Your task to perform on an android device: delete browsing data in the chrome app Image 0: 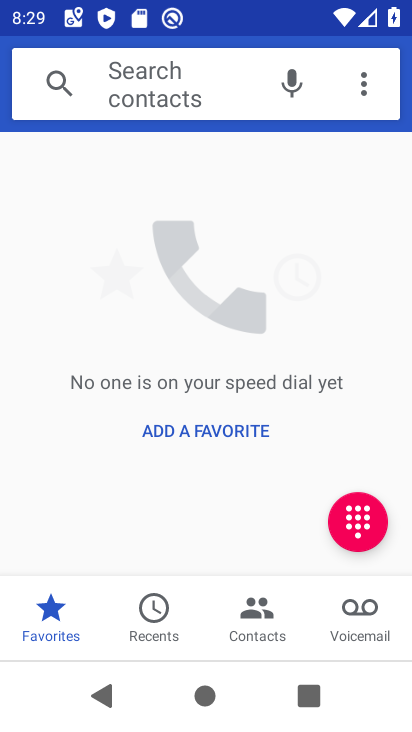
Step 0: press home button
Your task to perform on an android device: delete browsing data in the chrome app Image 1: 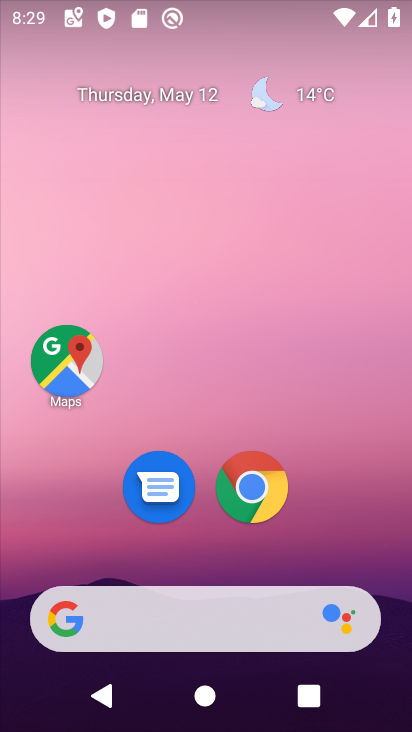
Step 1: click (268, 498)
Your task to perform on an android device: delete browsing data in the chrome app Image 2: 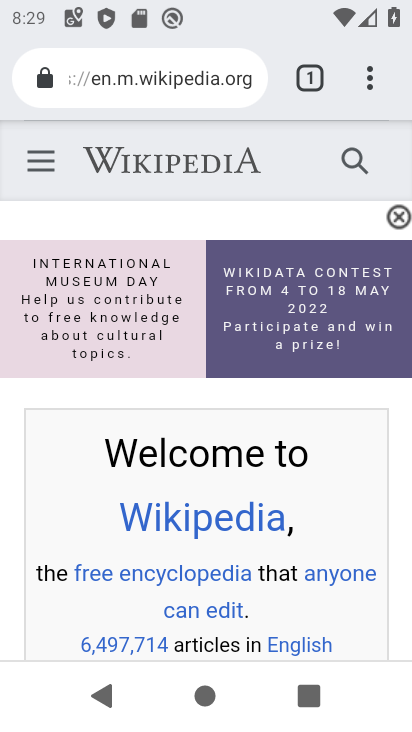
Step 2: click (370, 80)
Your task to perform on an android device: delete browsing data in the chrome app Image 3: 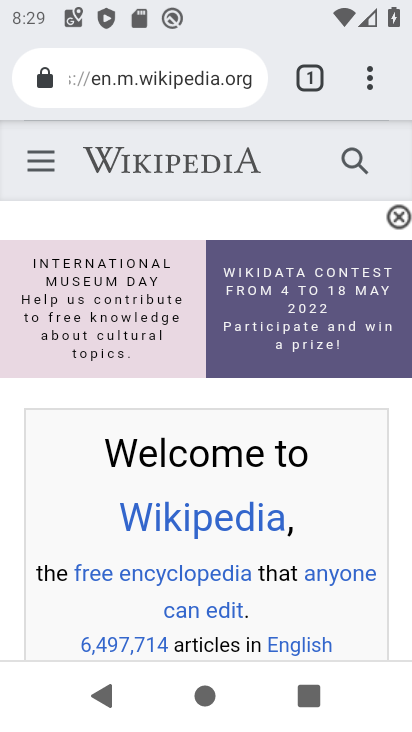
Step 3: click (372, 79)
Your task to perform on an android device: delete browsing data in the chrome app Image 4: 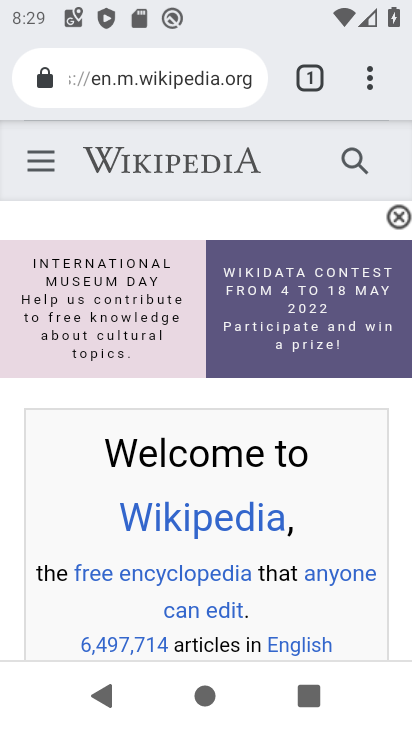
Step 4: drag from (377, 76) to (108, 556)
Your task to perform on an android device: delete browsing data in the chrome app Image 5: 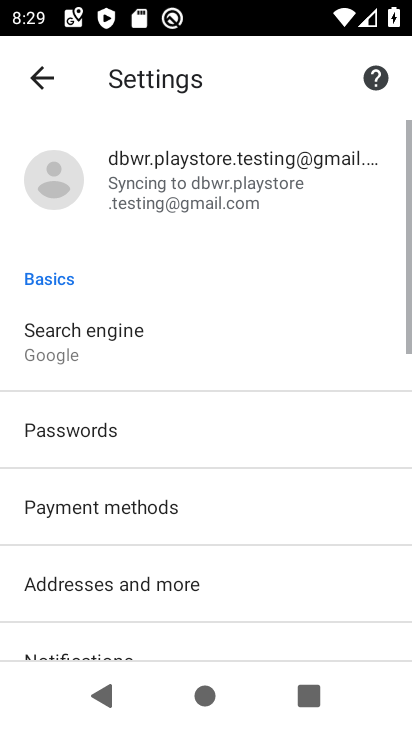
Step 5: drag from (292, 567) to (285, 175)
Your task to perform on an android device: delete browsing data in the chrome app Image 6: 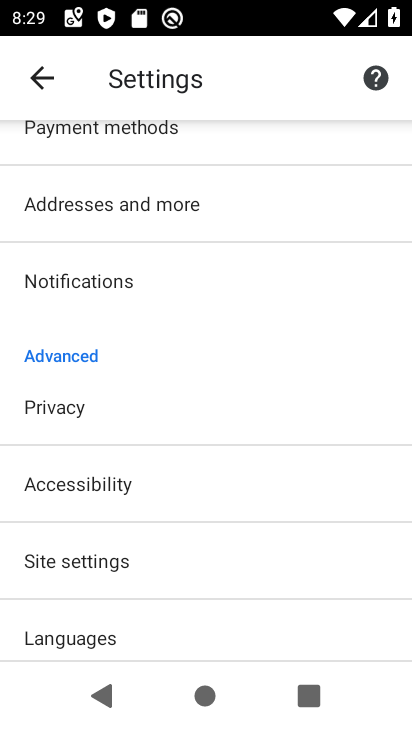
Step 6: click (64, 400)
Your task to perform on an android device: delete browsing data in the chrome app Image 7: 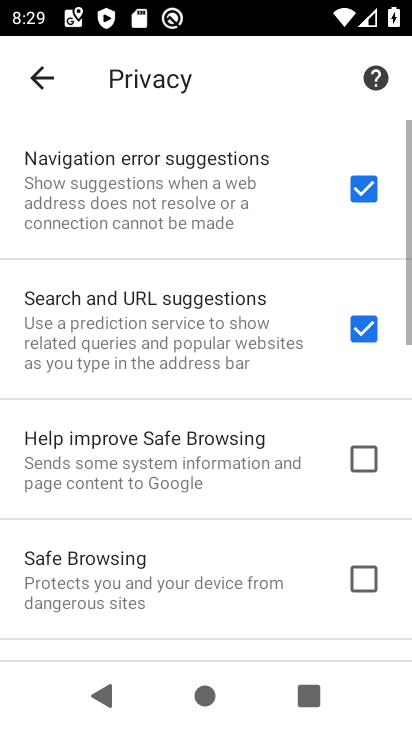
Step 7: drag from (141, 585) to (132, 141)
Your task to perform on an android device: delete browsing data in the chrome app Image 8: 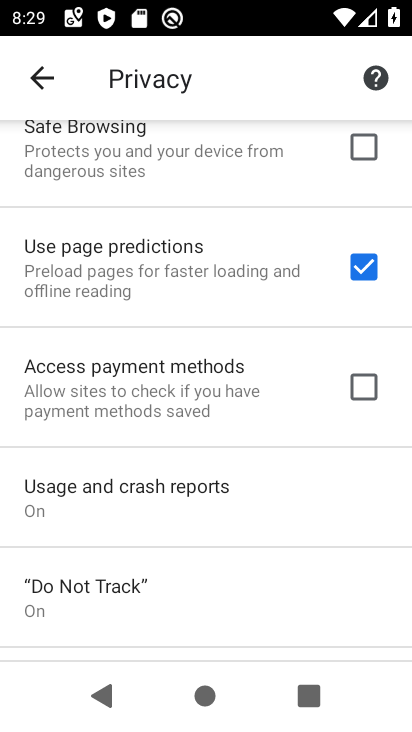
Step 8: drag from (97, 540) to (99, 136)
Your task to perform on an android device: delete browsing data in the chrome app Image 9: 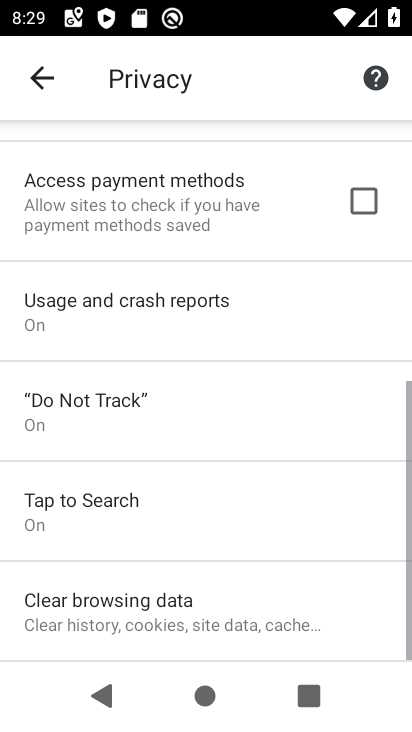
Step 9: click (122, 613)
Your task to perform on an android device: delete browsing data in the chrome app Image 10: 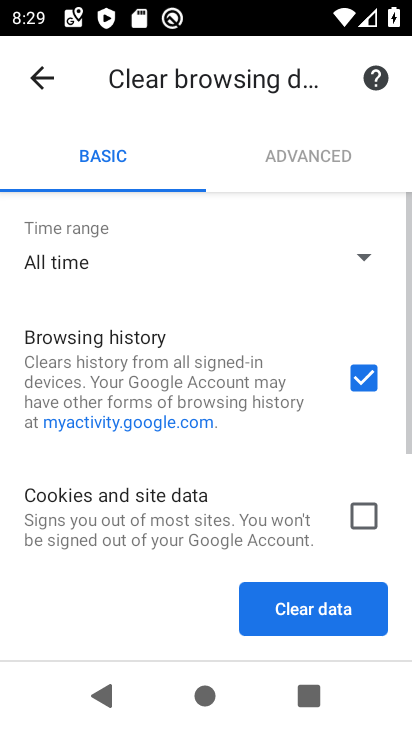
Step 10: drag from (141, 462) to (165, 106)
Your task to perform on an android device: delete browsing data in the chrome app Image 11: 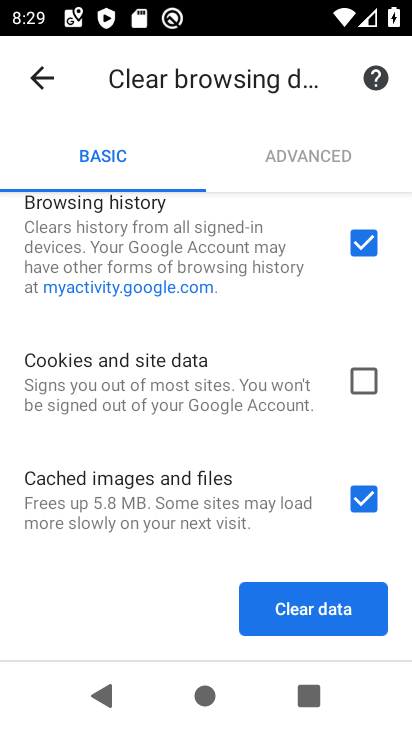
Step 11: click (350, 503)
Your task to perform on an android device: delete browsing data in the chrome app Image 12: 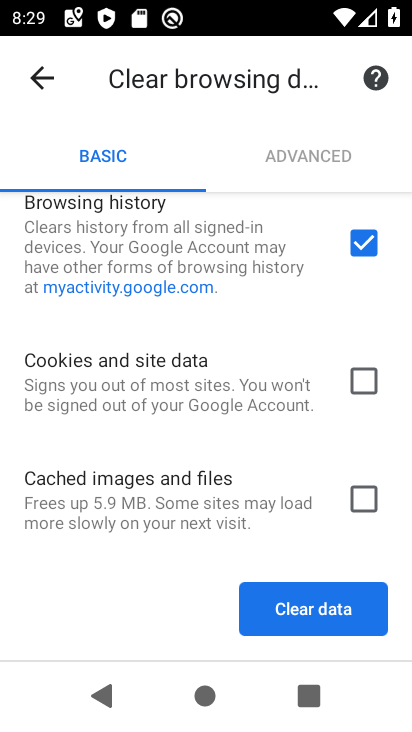
Step 12: click (284, 613)
Your task to perform on an android device: delete browsing data in the chrome app Image 13: 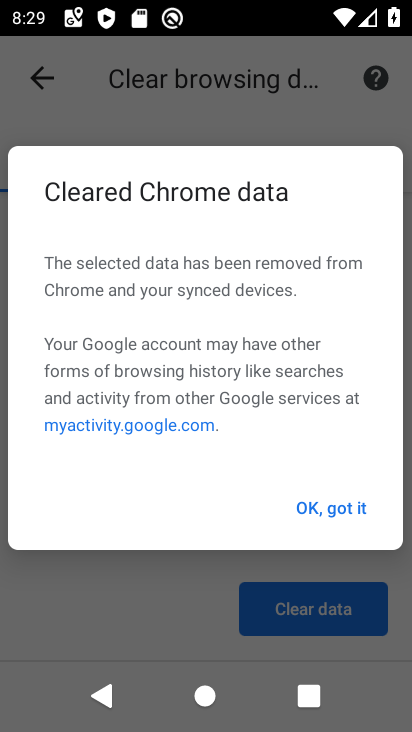
Step 13: click (326, 508)
Your task to perform on an android device: delete browsing data in the chrome app Image 14: 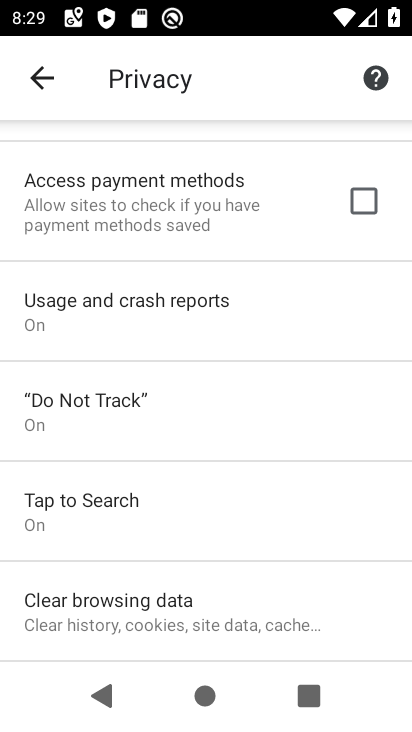
Step 14: task complete